Your task to perform on an android device: see sites visited before in the chrome app Image 0: 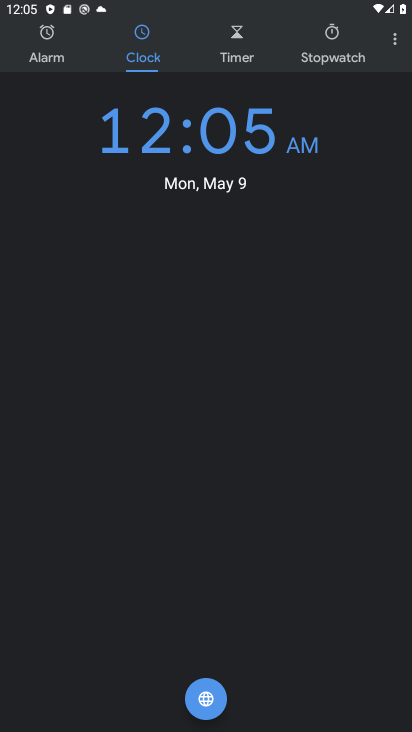
Step 0: press home button
Your task to perform on an android device: see sites visited before in the chrome app Image 1: 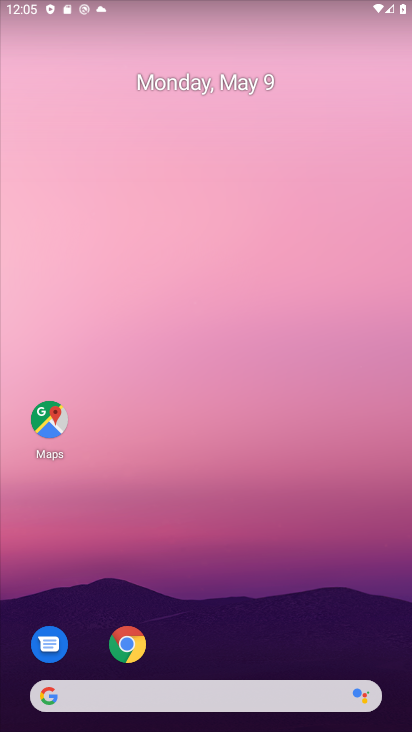
Step 1: drag from (257, 596) to (213, 400)
Your task to perform on an android device: see sites visited before in the chrome app Image 2: 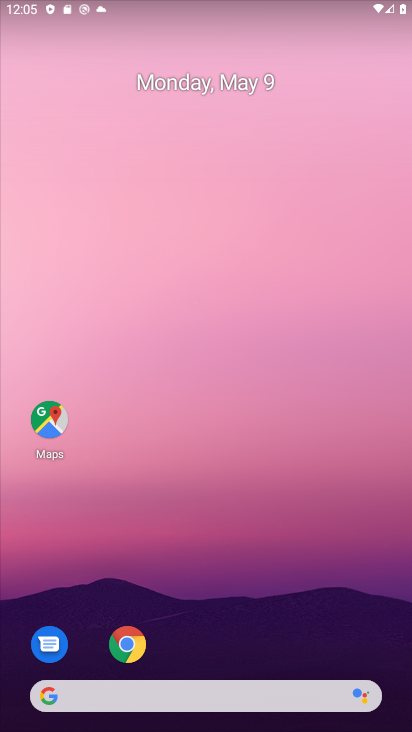
Step 2: click (125, 647)
Your task to perform on an android device: see sites visited before in the chrome app Image 3: 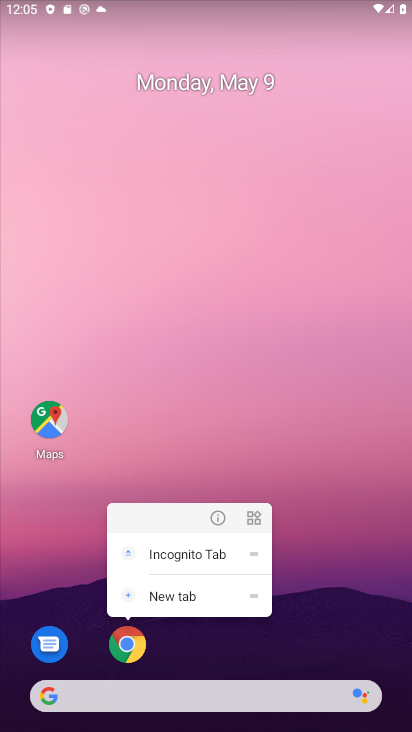
Step 3: click (135, 649)
Your task to perform on an android device: see sites visited before in the chrome app Image 4: 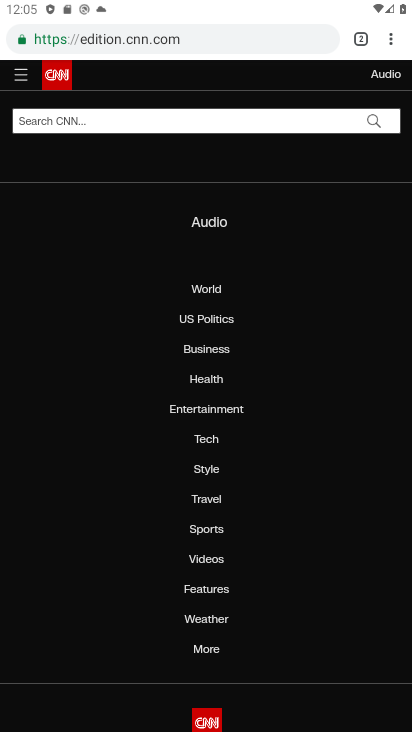
Step 4: click (386, 37)
Your task to perform on an android device: see sites visited before in the chrome app Image 5: 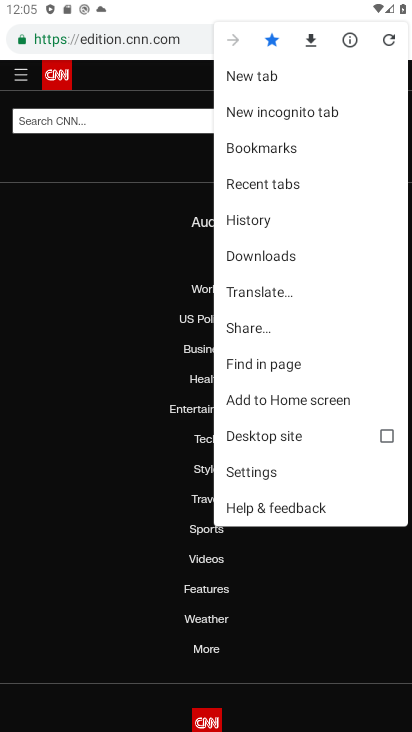
Step 5: click (266, 220)
Your task to perform on an android device: see sites visited before in the chrome app Image 6: 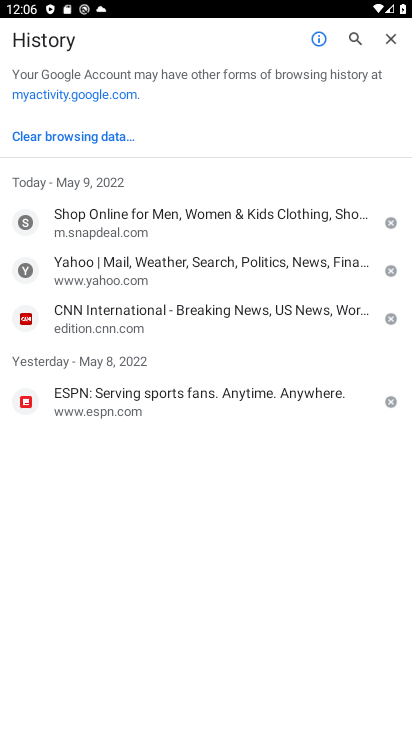
Step 6: task complete